Your task to perform on an android device: Find coffee shops on Maps Image 0: 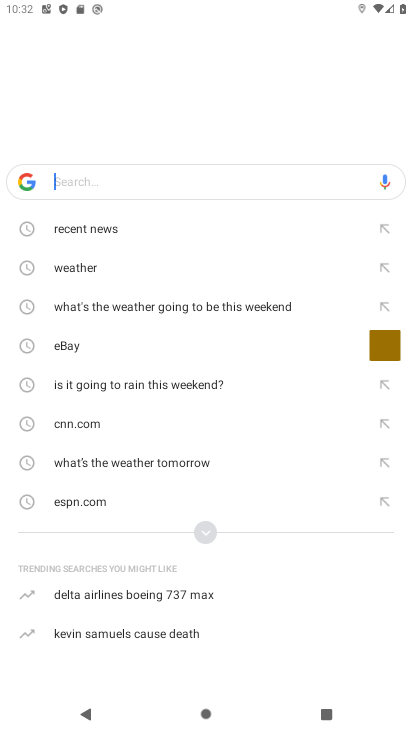
Step 0: click (127, 604)
Your task to perform on an android device: Find coffee shops on Maps Image 1: 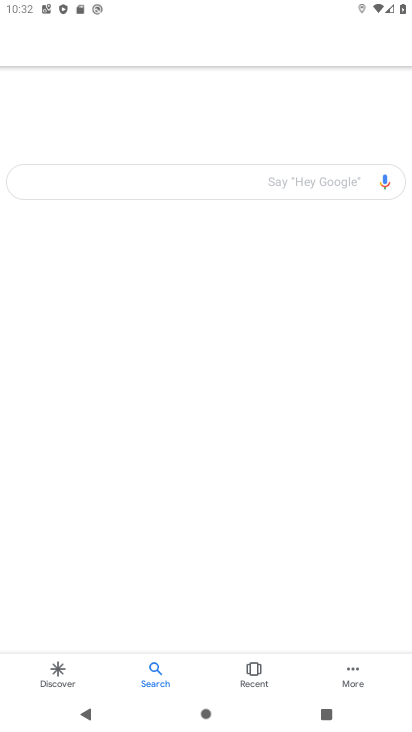
Step 1: press home button
Your task to perform on an android device: Find coffee shops on Maps Image 2: 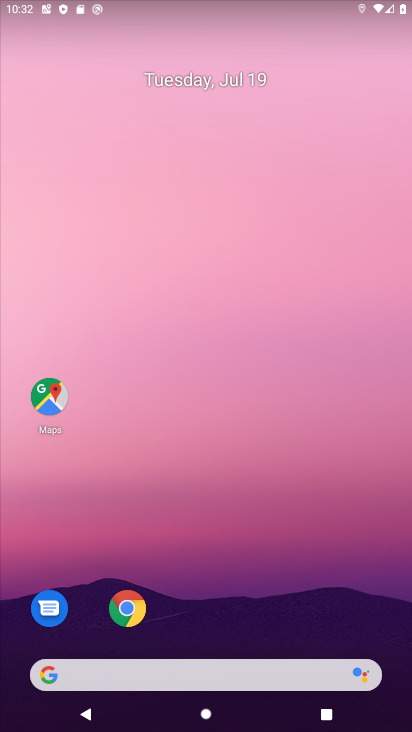
Step 2: click (47, 395)
Your task to perform on an android device: Find coffee shops on Maps Image 3: 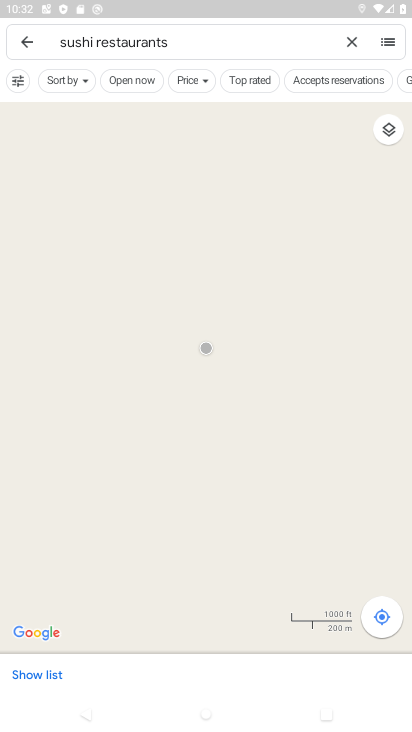
Step 3: click (349, 39)
Your task to perform on an android device: Find coffee shops on Maps Image 4: 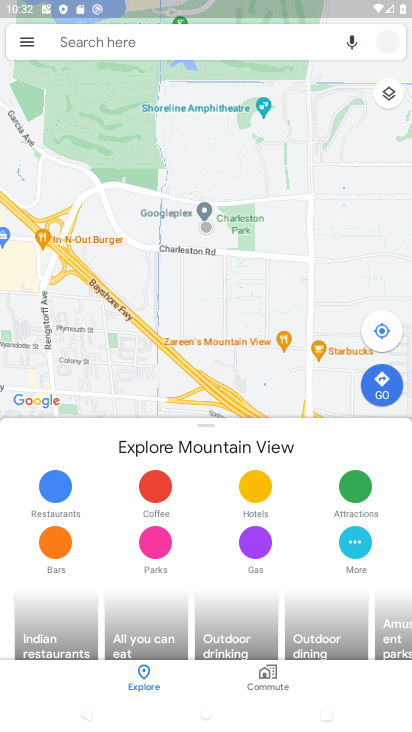
Step 4: click (249, 35)
Your task to perform on an android device: Find coffee shops on Maps Image 5: 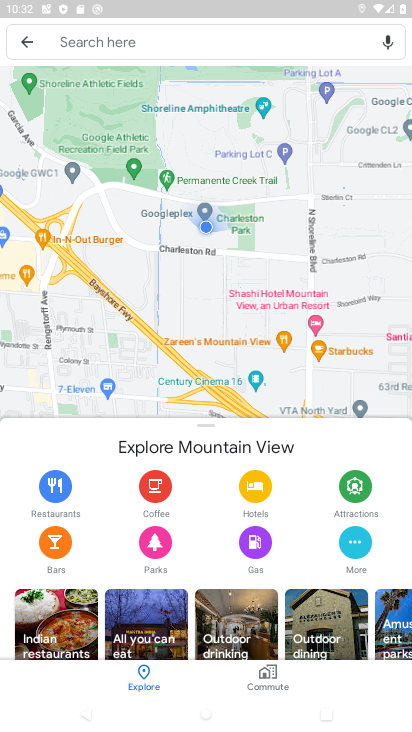
Step 5: click (242, 40)
Your task to perform on an android device: Find coffee shops on Maps Image 6: 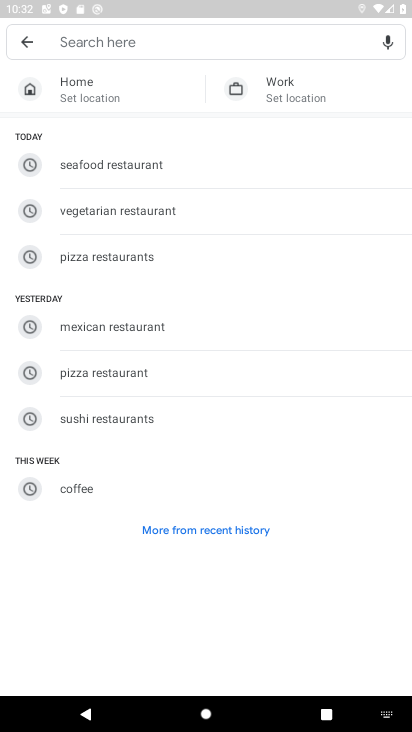
Step 6: click (55, 489)
Your task to perform on an android device: Find coffee shops on Maps Image 7: 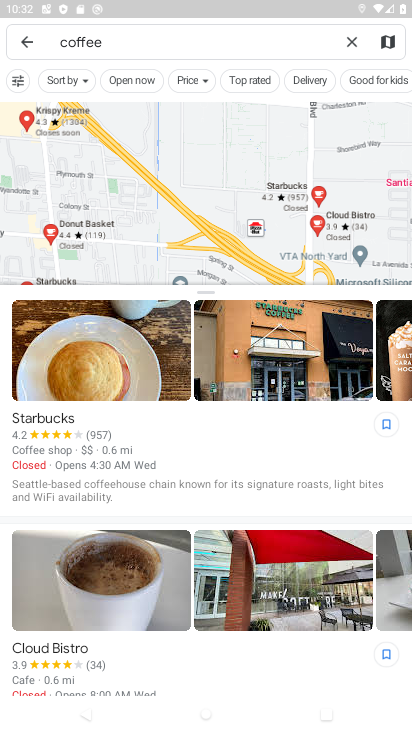
Step 7: task complete